Your task to perform on an android device: Turn on the flashlight Image 0: 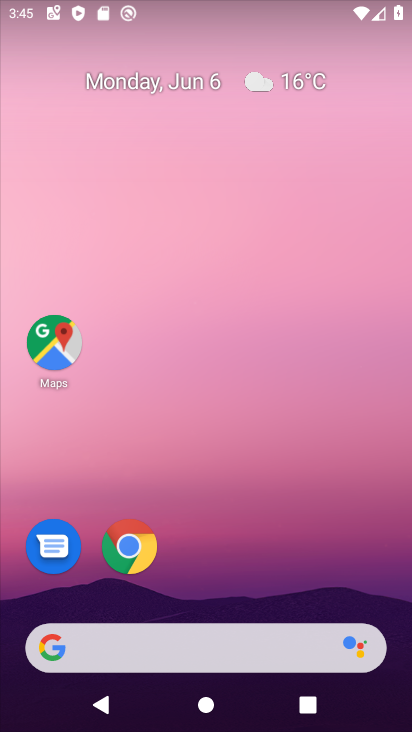
Step 0: drag from (285, 541) to (293, 25)
Your task to perform on an android device: Turn on the flashlight Image 1: 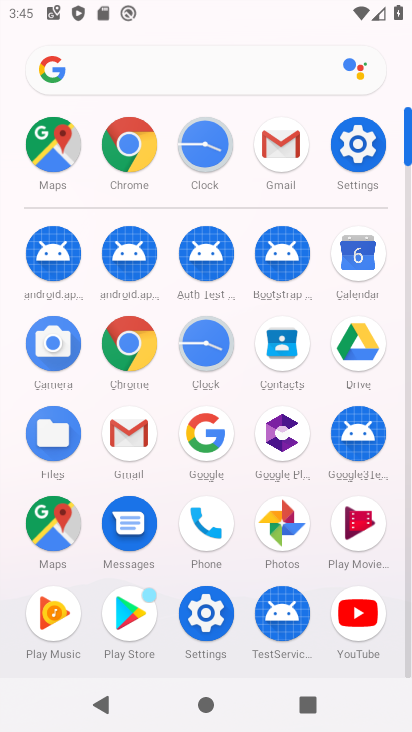
Step 1: click (345, 134)
Your task to perform on an android device: Turn on the flashlight Image 2: 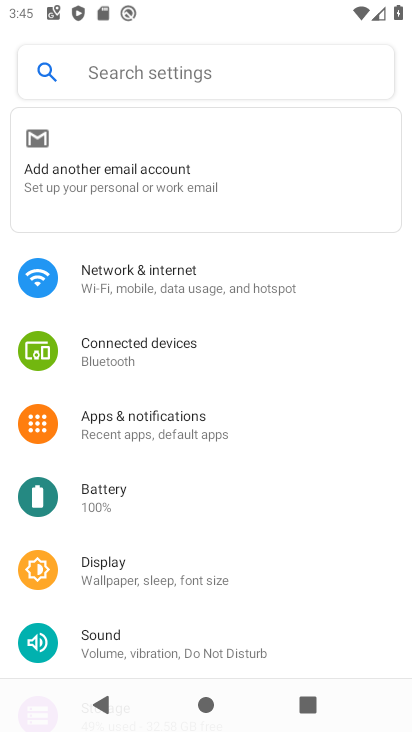
Step 2: task complete